Your task to perform on an android device: What's the weather going to be this weekend? Image 0: 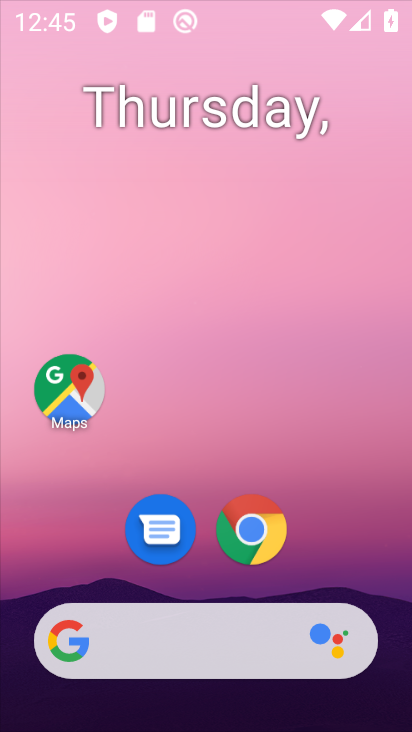
Step 0: click (341, 188)
Your task to perform on an android device: What's the weather going to be this weekend? Image 1: 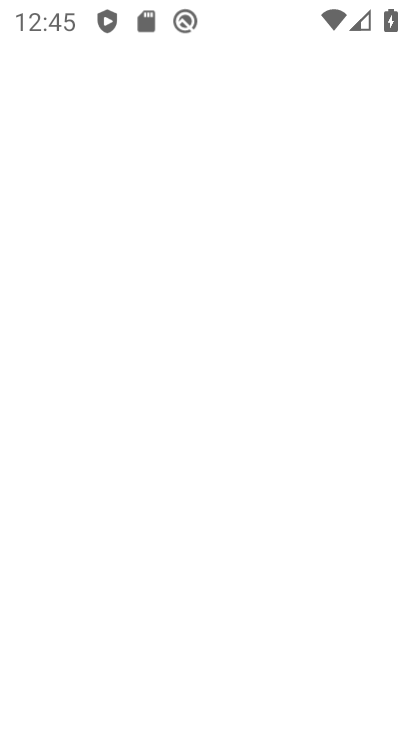
Step 1: press home button
Your task to perform on an android device: What's the weather going to be this weekend? Image 2: 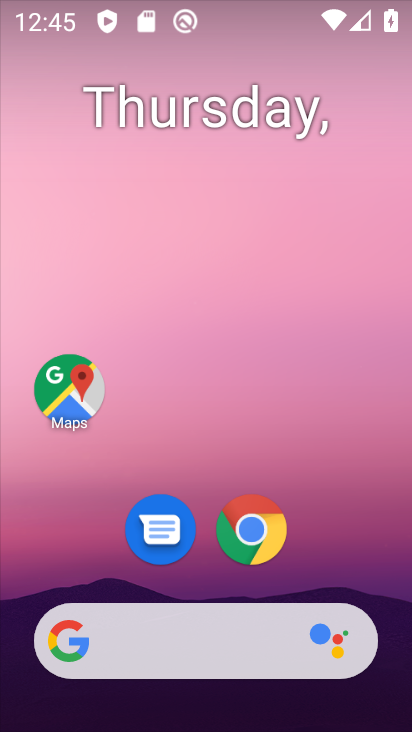
Step 2: drag from (347, 565) to (355, 230)
Your task to perform on an android device: What's the weather going to be this weekend? Image 3: 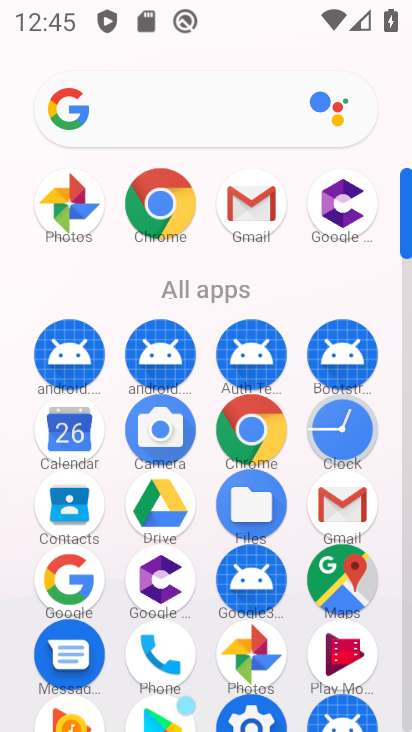
Step 3: click (167, 216)
Your task to perform on an android device: What's the weather going to be this weekend? Image 4: 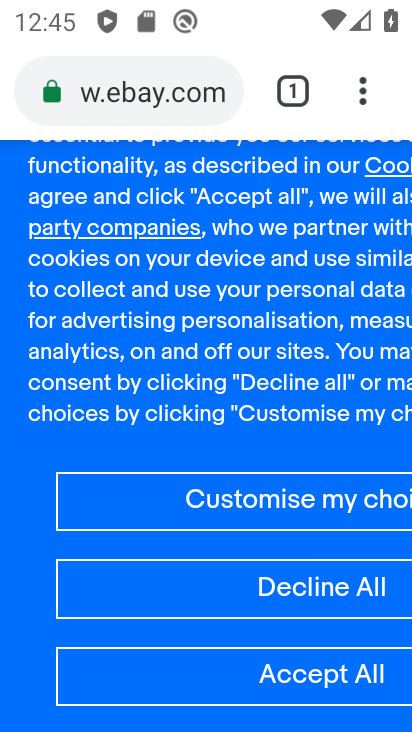
Step 4: click (161, 105)
Your task to perform on an android device: What's the weather going to be this weekend? Image 5: 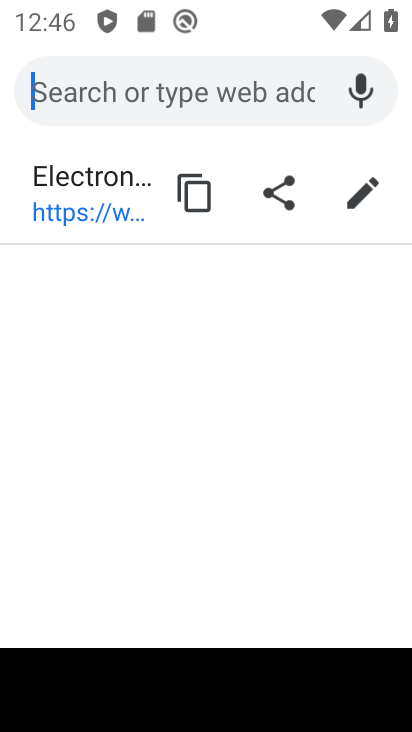
Step 5: type "What's the weather going to be this weekend"
Your task to perform on an android device: What's the weather going to be this weekend? Image 6: 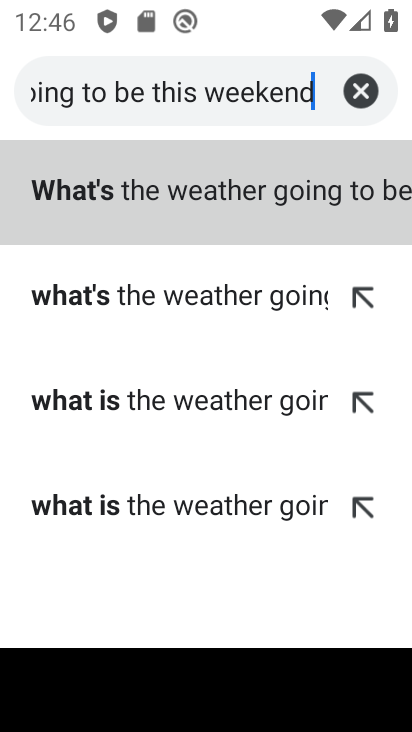
Step 6: click (244, 207)
Your task to perform on an android device: What's the weather going to be this weekend? Image 7: 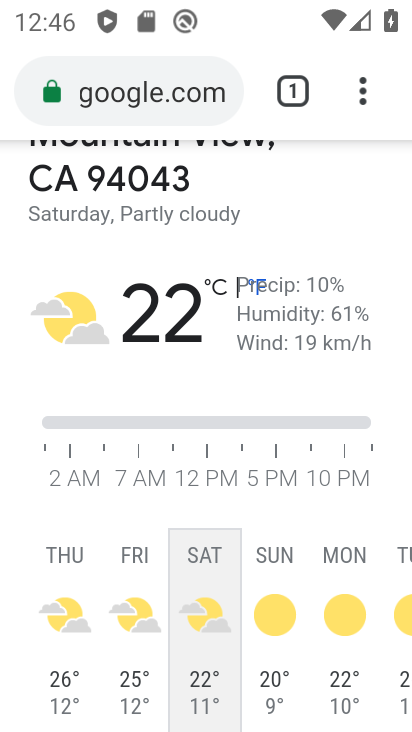
Step 7: task complete